Your task to perform on an android device: Open Google Maps and go to "Timeline" Image 0: 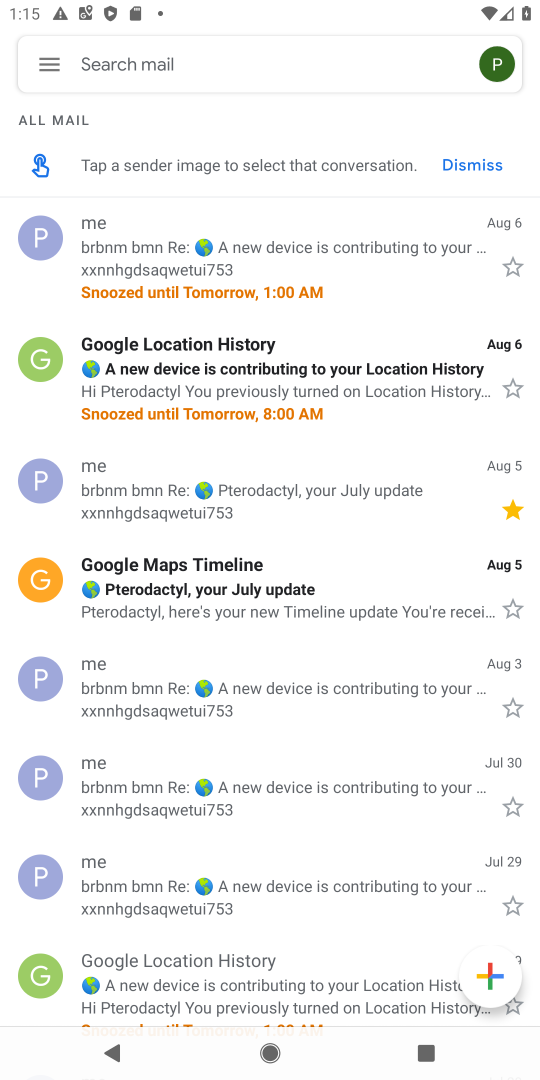
Step 0: press home button
Your task to perform on an android device: Open Google Maps and go to "Timeline" Image 1: 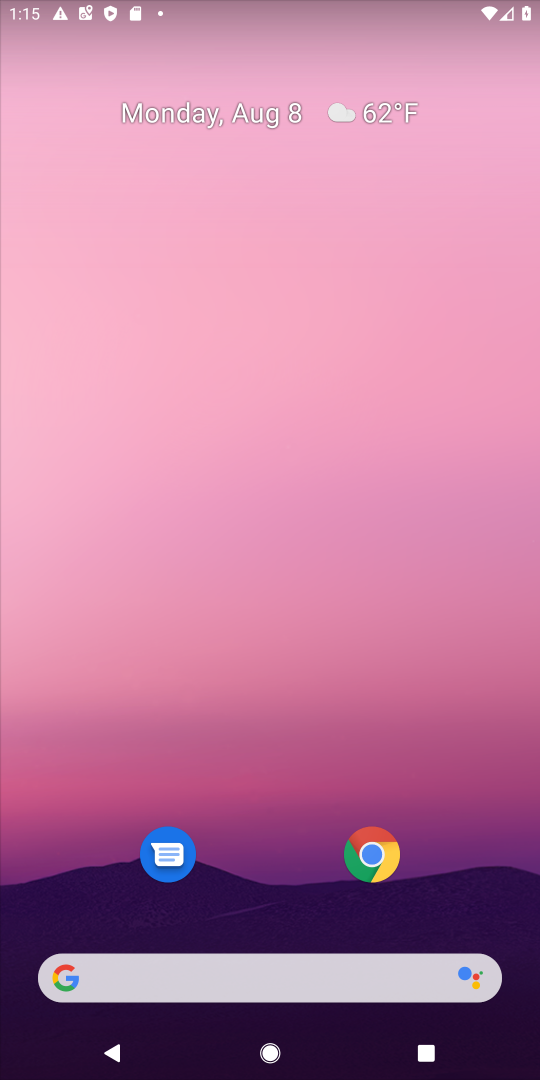
Step 1: drag from (289, 314) to (313, 37)
Your task to perform on an android device: Open Google Maps and go to "Timeline" Image 2: 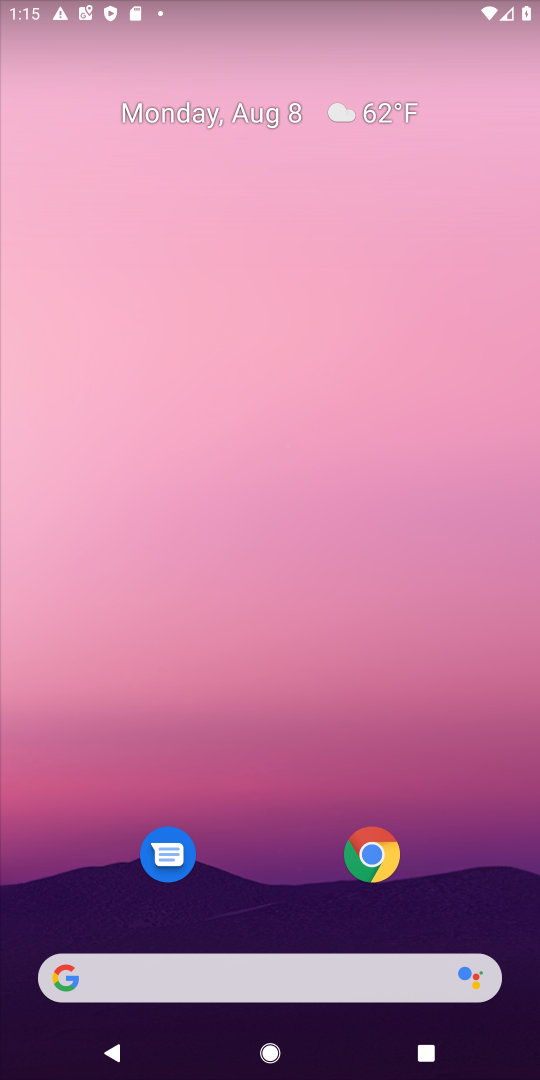
Step 2: drag from (296, 895) to (264, 119)
Your task to perform on an android device: Open Google Maps and go to "Timeline" Image 3: 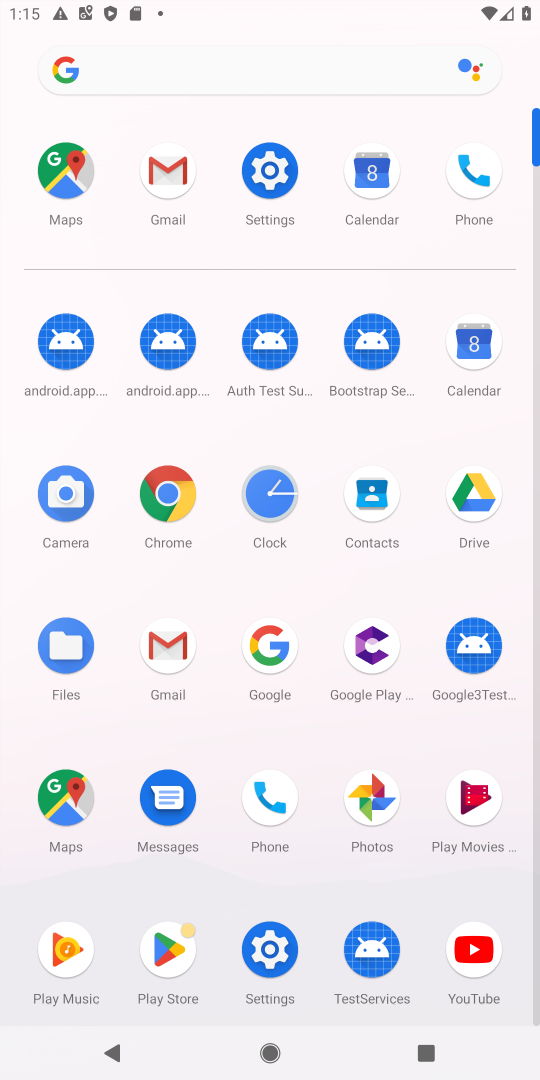
Step 3: click (67, 792)
Your task to perform on an android device: Open Google Maps and go to "Timeline" Image 4: 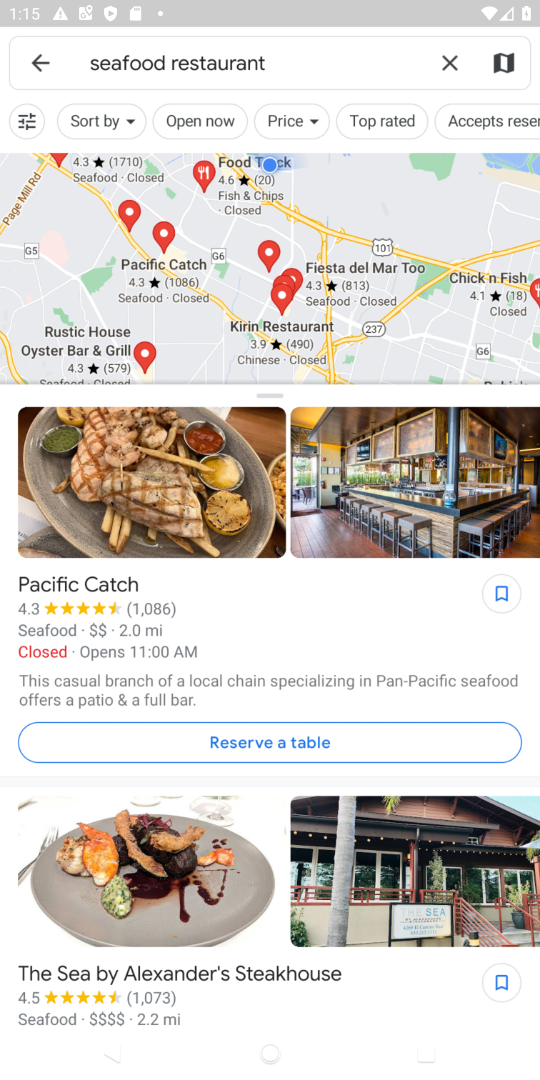
Step 4: click (41, 69)
Your task to perform on an android device: Open Google Maps and go to "Timeline" Image 5: 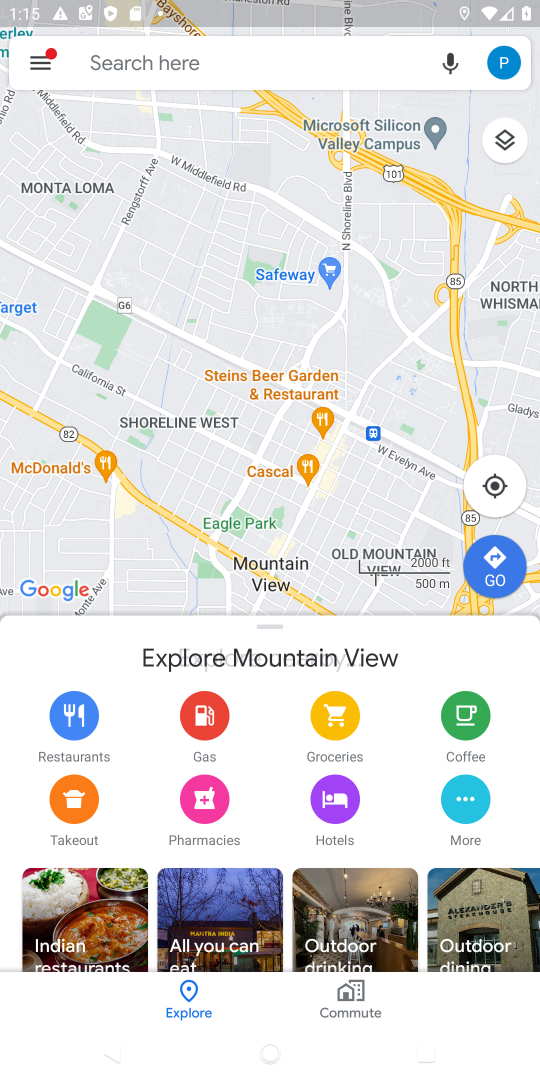
Step 5: click (33, 60)
Your task to perform on an android device: Open Google Maps and go to "Timeline" Image 6: 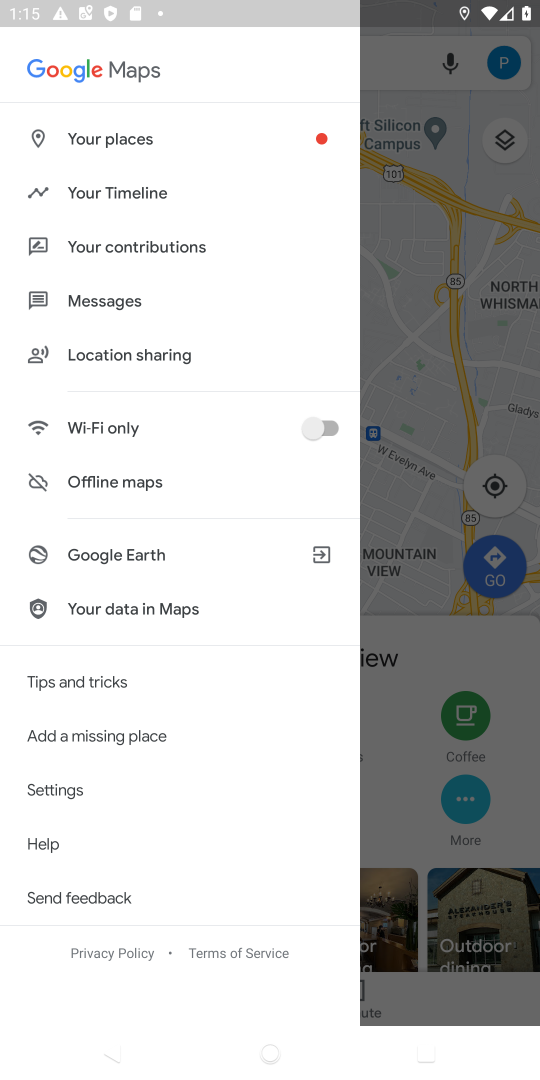
Step 6: click (118, 191)
Your task to perform on an android device: Open Google Maps and go to "Timeline" Image 7: 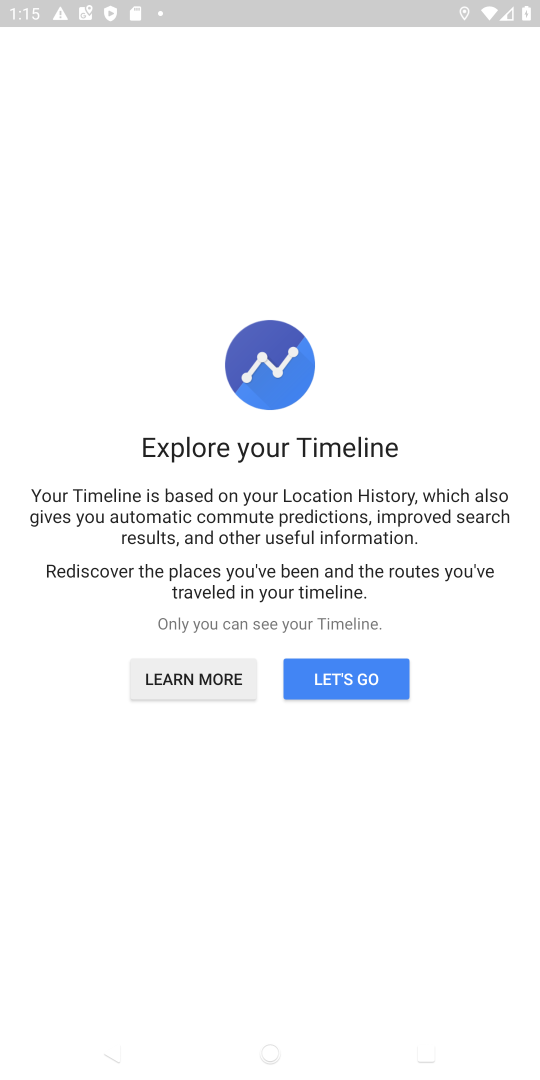
Step 7: click (334, 682)
Your task to perform on an android device: Open Google Maps and go to "Timeline" Image 8: 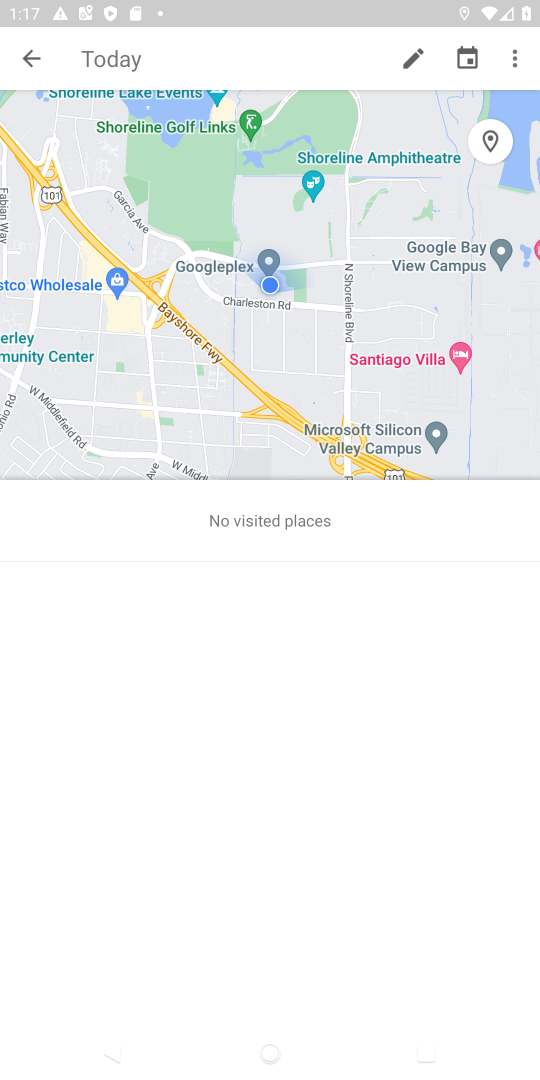
Step 8: task complete